Your task to perform on an android device: Open Chrome and go to settings Image 0: 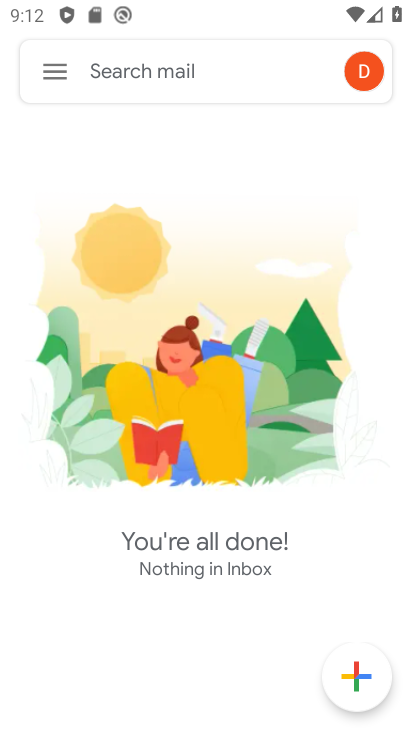
Step 0: press home button
Your task to perform on an android device: Open Chrome and go to settings Image 1: 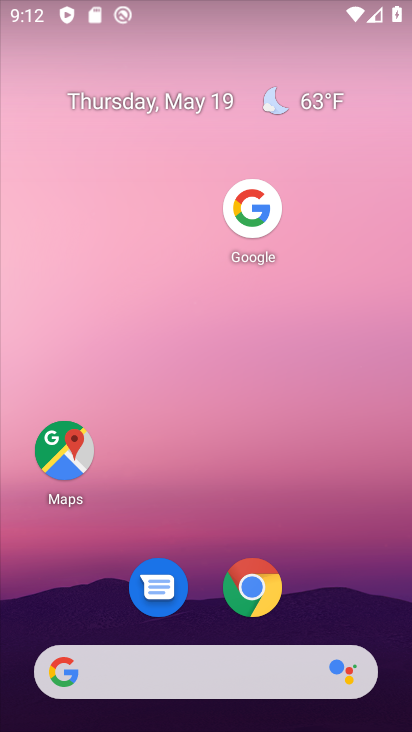
Step 1: click (246, 584)
Your task to perform on an android device: Open Chrome and go to settings Image 2: 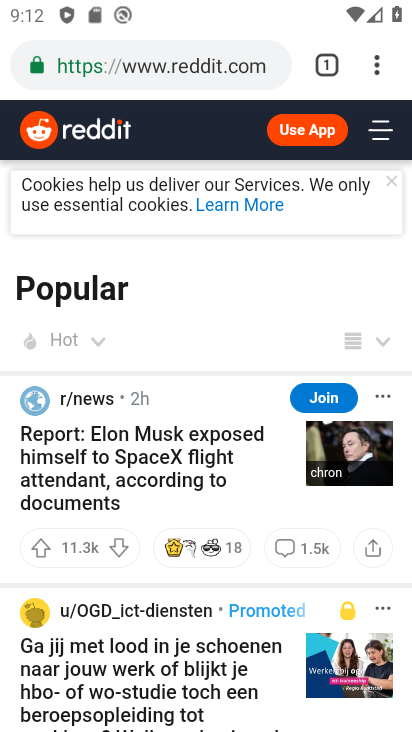
Step 2: click (374, 68)
Your task to perform on an android device: Open Chrome and go to settings Image 3: 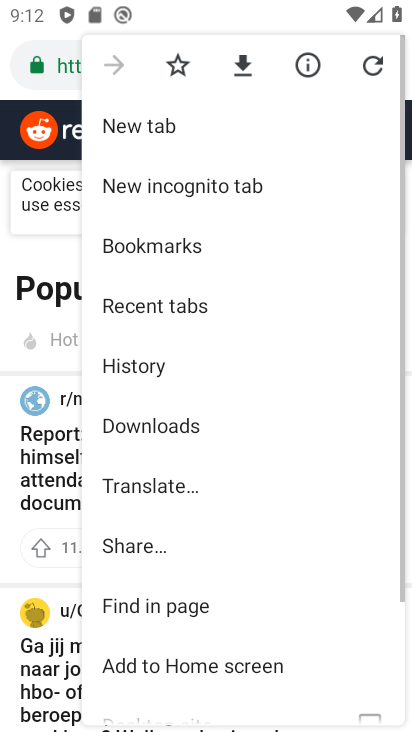
Step 3: drag from (275, 600) to (245, 211)
Your task to perform on an android device: Open Chrome and go to settings Image 4: 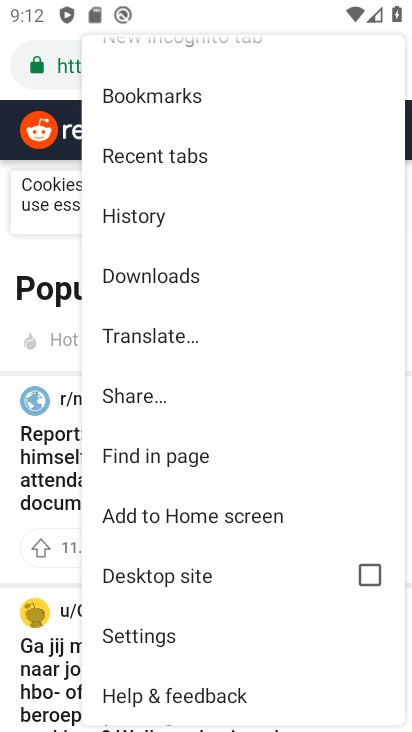
Step 4: click (174, 621)
Your task to perform on an android device: Open Chrome and go to settings Image 5: 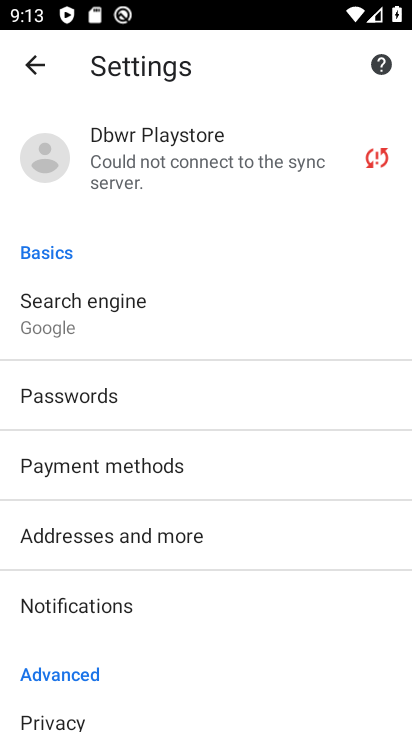
Step 5: task complete